Your task to perform on an android device: move a message to another label in the gmail app Image 0: 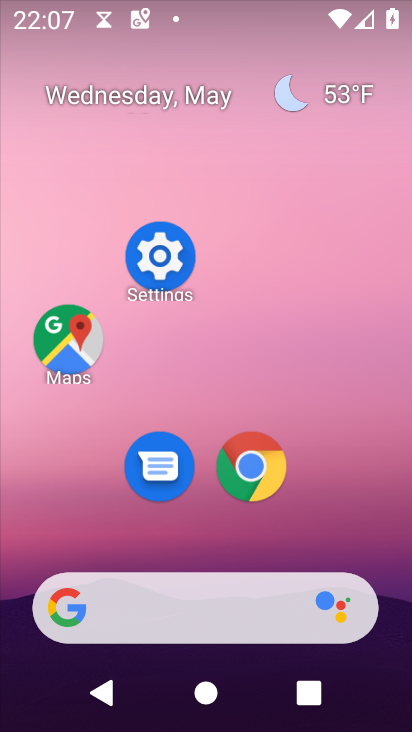
Step 0: click (252, 264)
Your task to perform on an android device: move a message to another label in the gmail app Image 1: 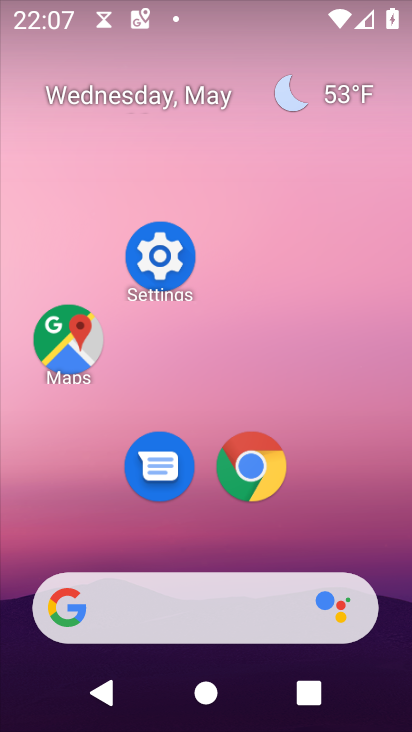
Step 1: drag from (196, 541) to (244, 249)
Your task to perform on an android device: move a message to another label in the gmail app Image 2: 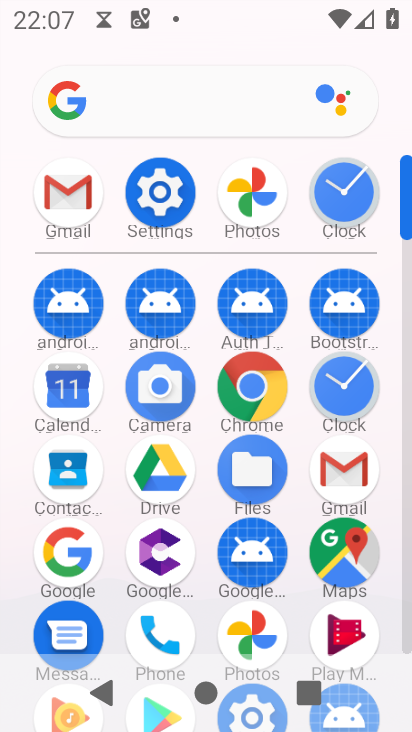
Step 2: click (334, 463)
Your task to perform on an android device: move a message to another label in the gmail app Image 3: 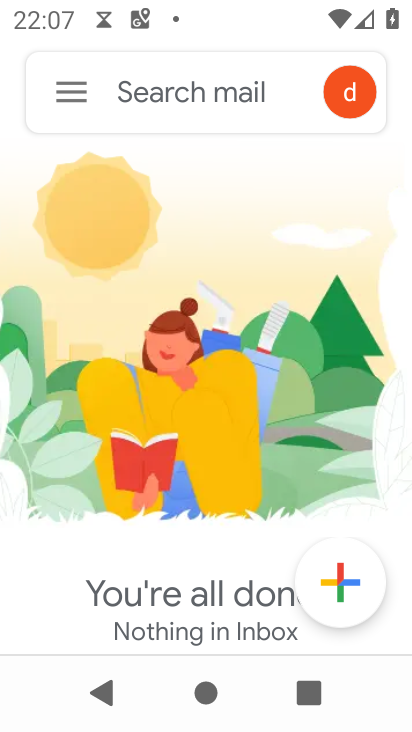
Step 3: task complete